Your task to perform on an android device: open a bookmark in the chrome app Image 0: 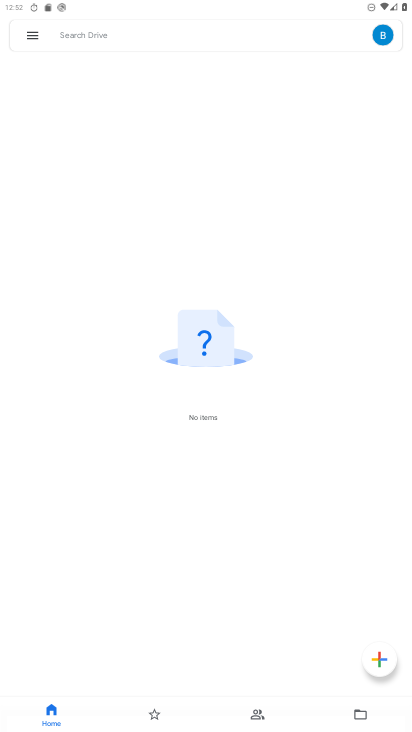
Step 0: press home button
Your task to perform on an android device: open a bookmark in the chrome app Image 1: 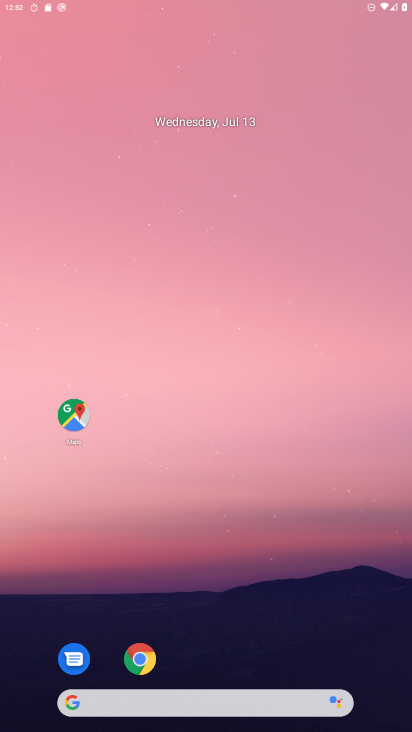
Step 1: drag from (309, 693) to (296, 25)
Your task to perform on an android device: open a bookmark in the chrome app Image 2: 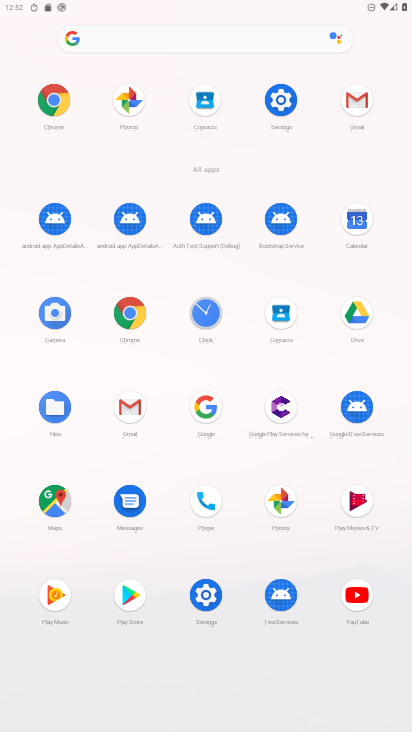
Step 2: click (131, 301)
Your task to perform on an android device: open a bookmark in the chrome app Image 3: 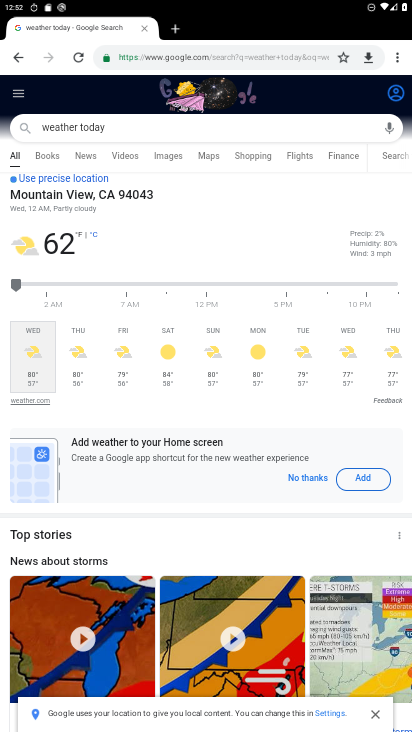
Step 3: task complete